Your task to perform on an android device: Go to internet settings Image 0: 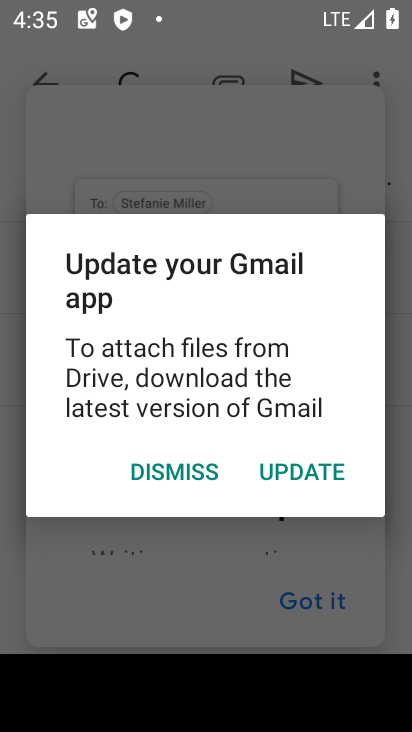
Step 0: press home button
Your task to perform on an android device: Go to internet settings Image 1: 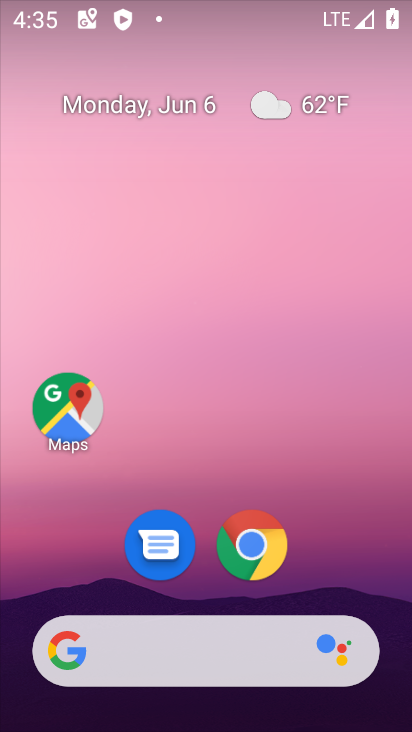
Step 1: drag from (207, 715) to (179, 58)
Your task to perform on an android device: Go to internet settings Image 2: 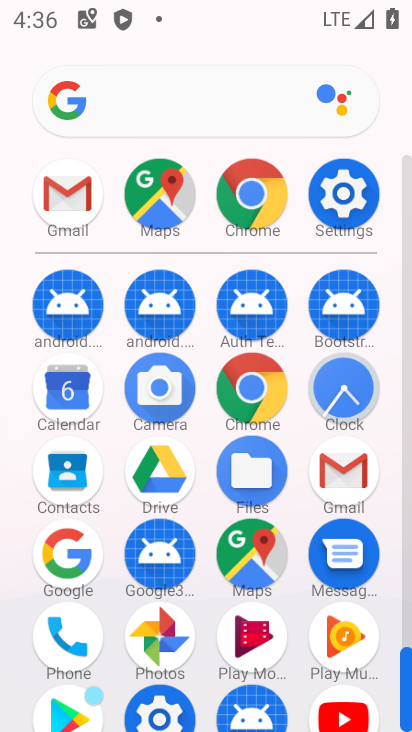
Step 2: click (348, 193)
Your task to perform on an android device: Go to internet settings Image 3: 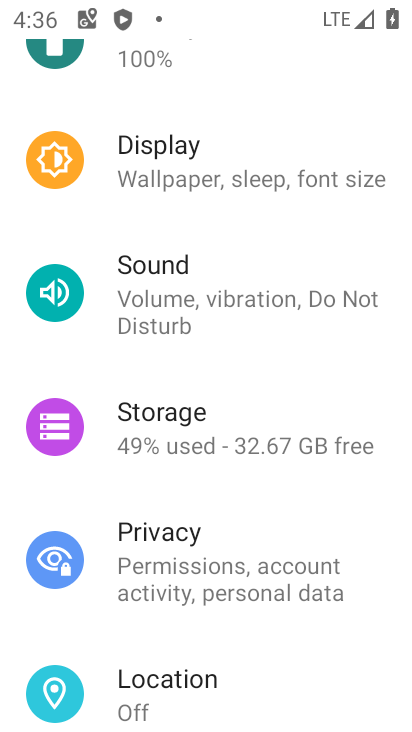
Step 3: drag from (191, 247) to (223, 502)
Your task to perform on an android device: Go to internet settings Image 4: 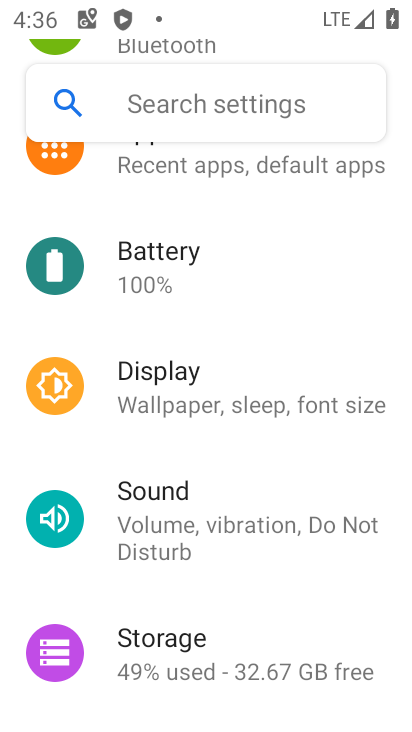
Step 4: drag from (223, 201) to (224, 604)
Your task to perform on an android device: Go to internet settings Image 5: 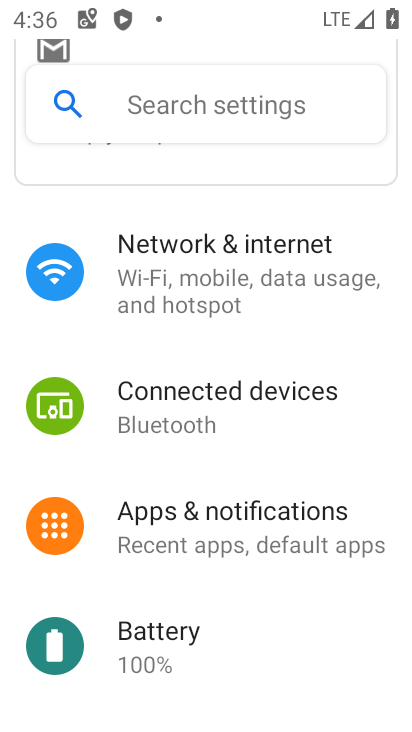
Step 5: click (189, 283)
Your task to perform on an android device: Go to internet settings Image 6: 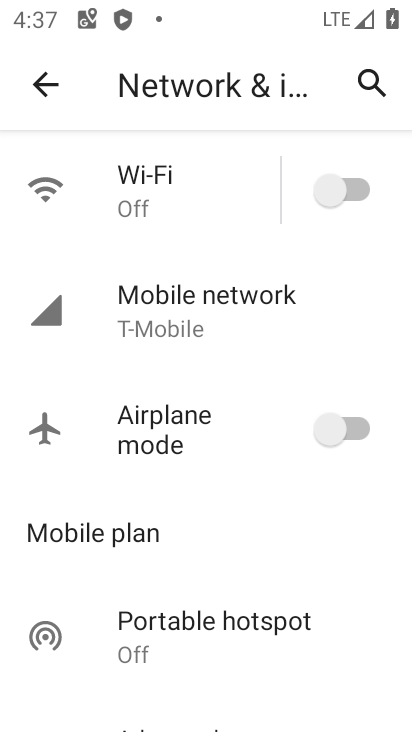
Step 6: task complete